Your task to perform on an android device: turn on showing notifications on the lock screen Image 0: 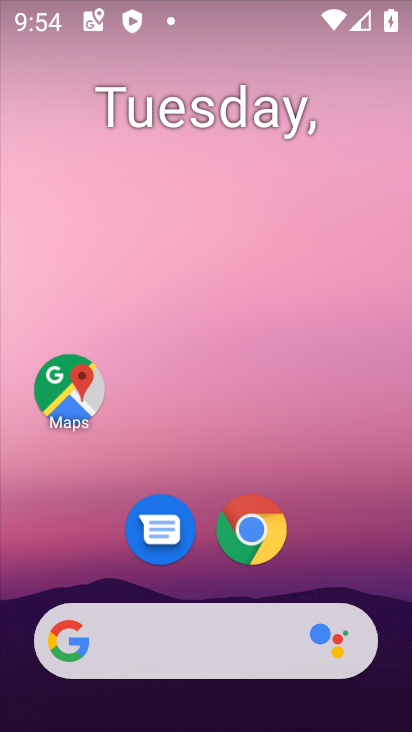
Step 0: click (404, 62)
Your task to perform on an android device: turn on showing notifications on the lock screen Image 1: 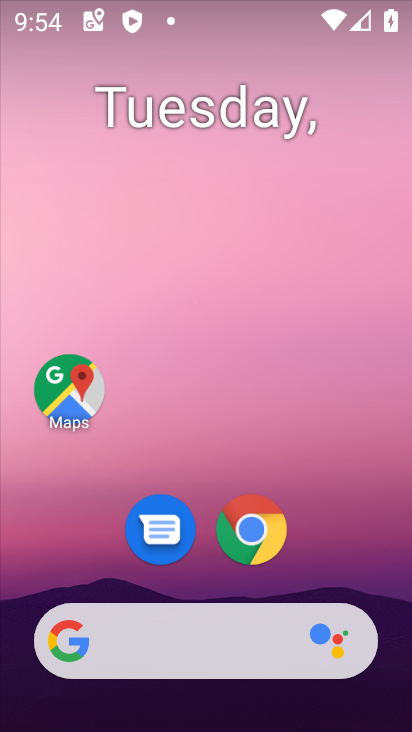
Step 1: click (278, 147)
Your task to perform on an android device: turn on showing notifications on the lock screen Image 2: 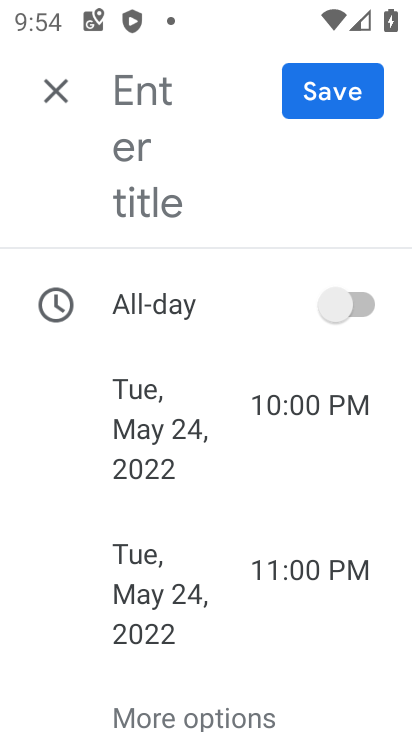
Step 2: press home button
Your task to perform on an android device: turn on showing notifications on the lock screen Image 3: 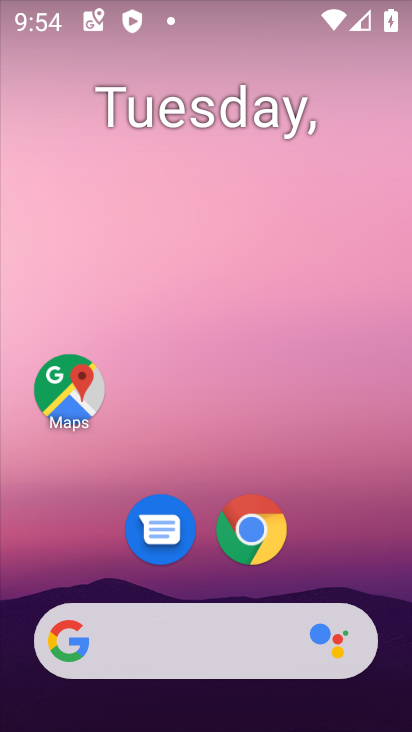
Step 3: drag from (301, 664) to (335, 263)
Your task to perform on an android device: turn on showing notifications on the lock screen Image 4: 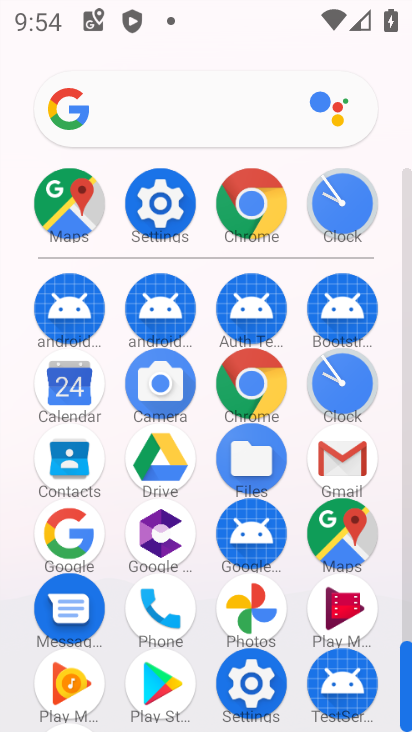
Step 4: click (155, 195)
Your task to perform on an android device: turn on showing notifications on the lock screen Image 5: 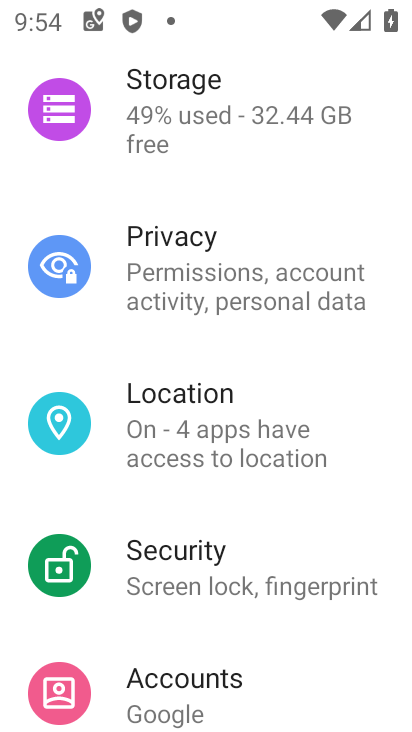
Step 5: drag from (249, 281) to (218, 542)
Your task to perform on an android device: turn on showing notifications on the lock screen Image 6: 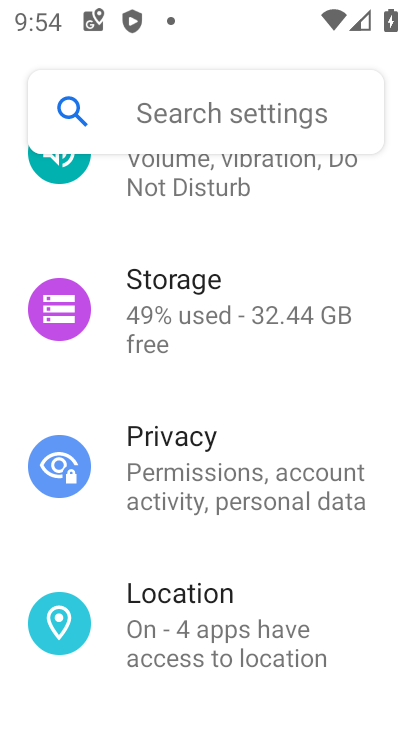
Step 6: drag from (234, 282) to (203, 615)
Your task to perform on an android device: turn on showing notifications on the lock screen Image 7: 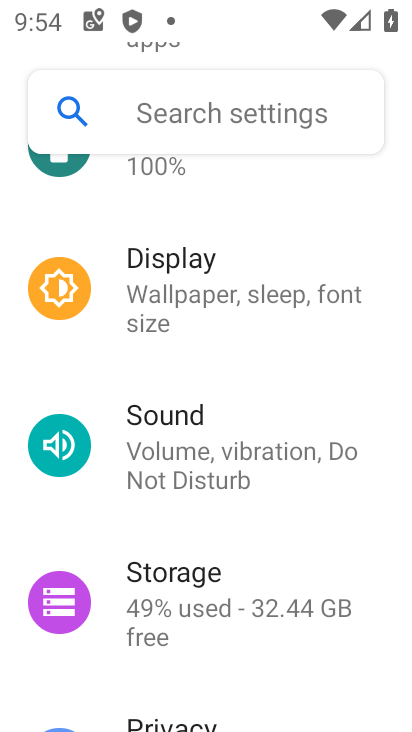
Step 7: drag from (251, 288) to (225, 533)
Your task to perform on an android device: turn on showing notifications on the lock screen Image 8: 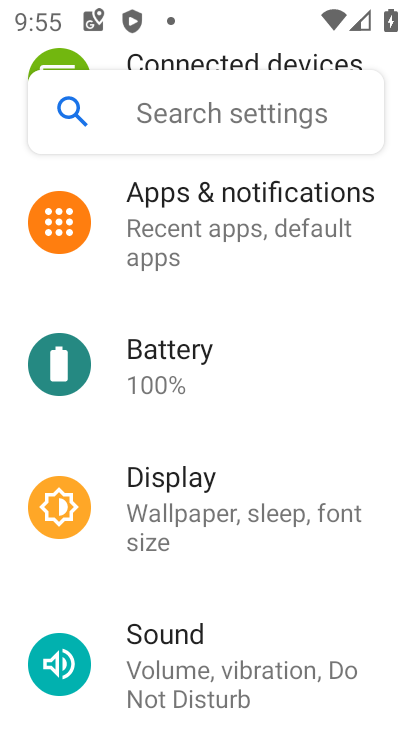
Step 8: click (228, 229)
Your task to perform on an android device: turn on showing notifications on the lock screen Image 9: 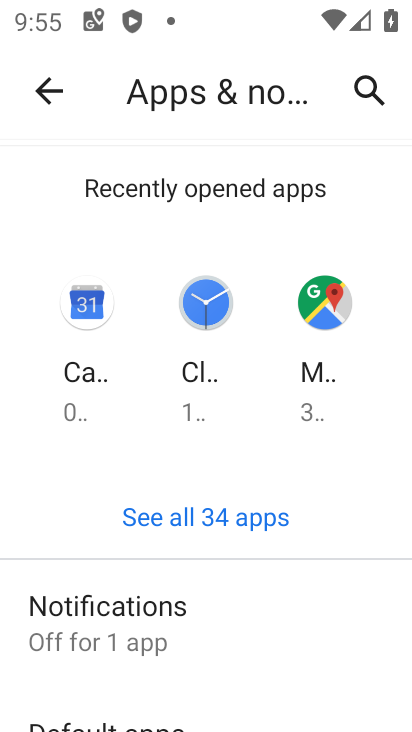
Step 9: drag from (201, 679) to (232, 431)
Your task to perform on an android device: turn on showing notifications on the lock screen Image 10: 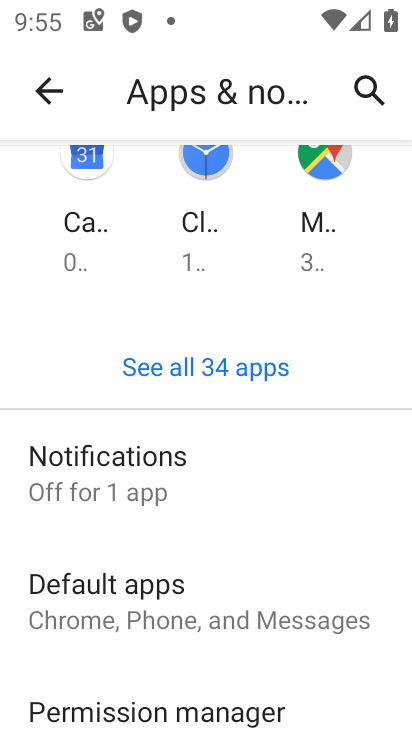
Step 10: drag from (273, 598) to (320, 326)
Your task to perform on an android device: turn on showing notifications on the lock screen Image 11: 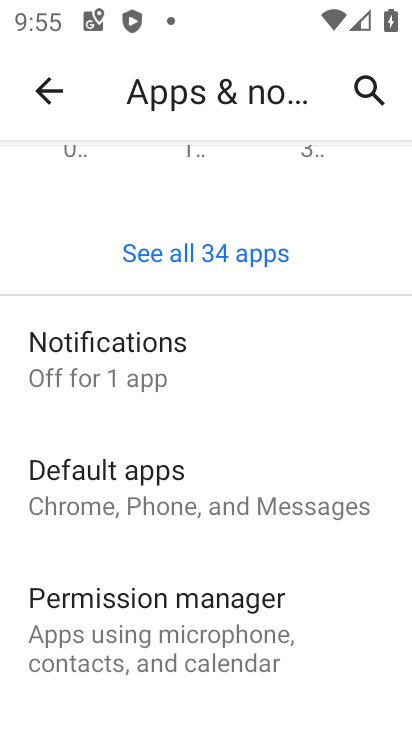
Step 11: click (227, 339)
Your task to perform on an android device: turn on showing notifications on the lock screen Image 12: 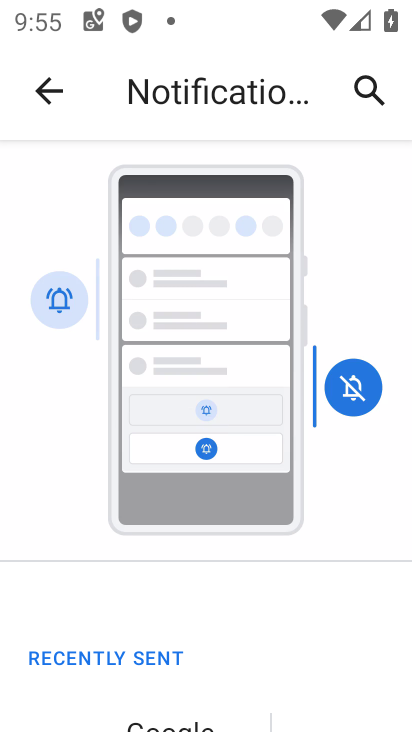
Step 12: drag from (234, 607) to (274, 49)
Your task to perform on an android device: turn on showing notifications on the lock screen Image 13: 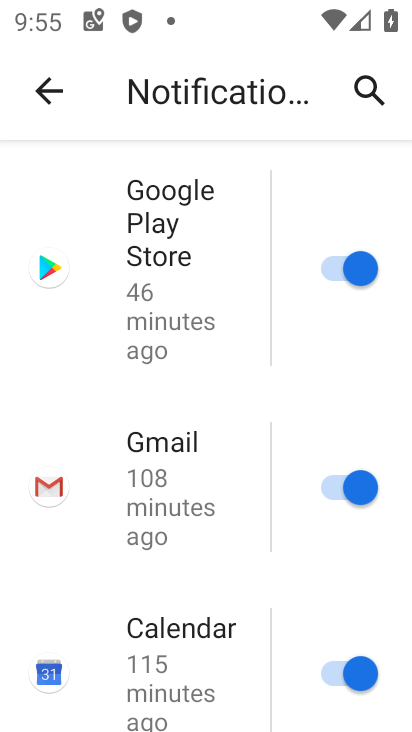
Step 13: drag from (247, 477) to (248, 220)
Your task to perform on an android device: turn on showing notifications on the lock screen Image 14: 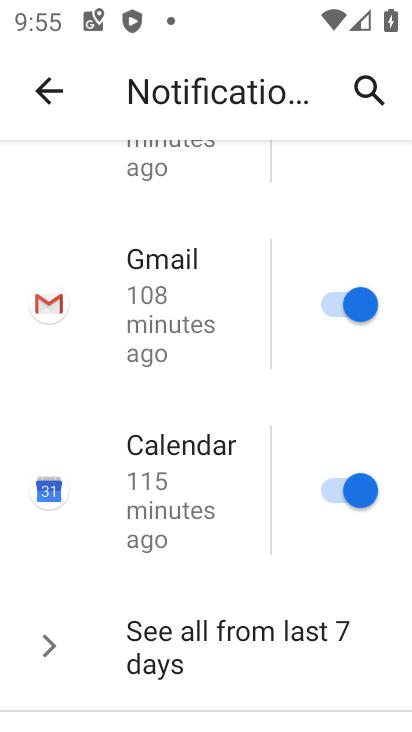
Step 14: drag from (294, 619) to (290, 405)
Your task to perform on an android device: turn on showing notifications on the lock screen Image 15: 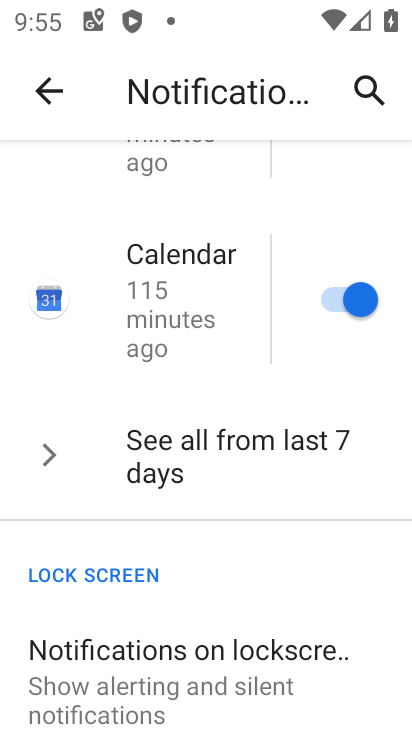
Step 15: click (189, 687)
Your task to perform on an android device: turn on showing notifications on the lock screen Image 16: 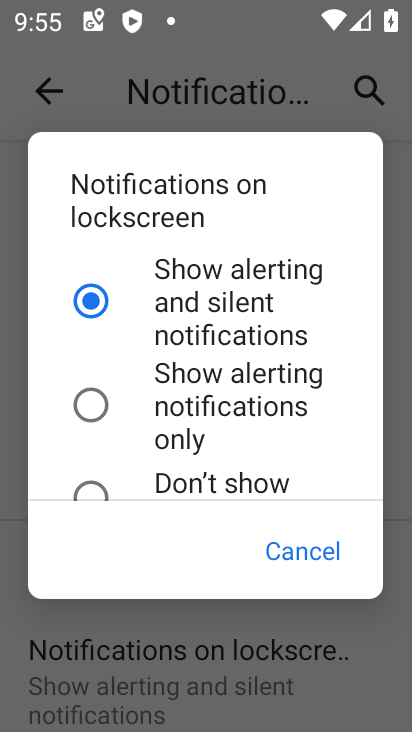
Step 16: task complete